Your task to perform on an android device: open app "Pandora - Music & Podcasts" Image 0: 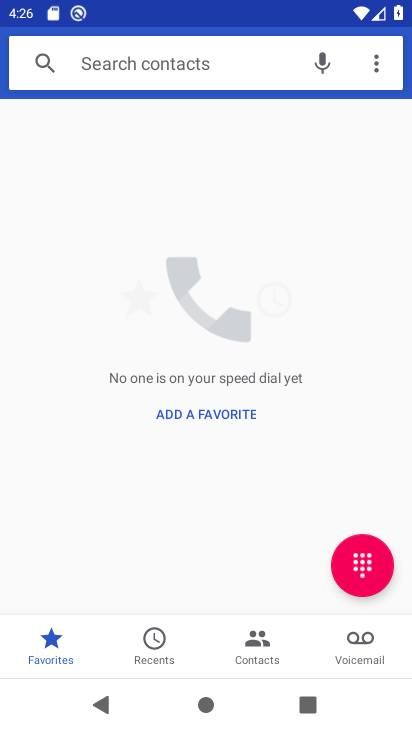
Step 0: press home button
Your task to perform on an android device: open app "Pandora - Music & Podcasts" Image 1: 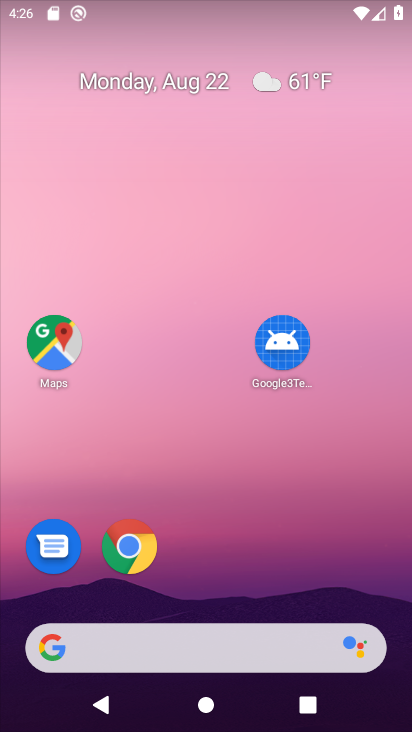
Step 1: drag from (402, 644) to (364, 157)
Your task to perform on an android device: open app "Pandora - Music & Podcasts" Image 2: 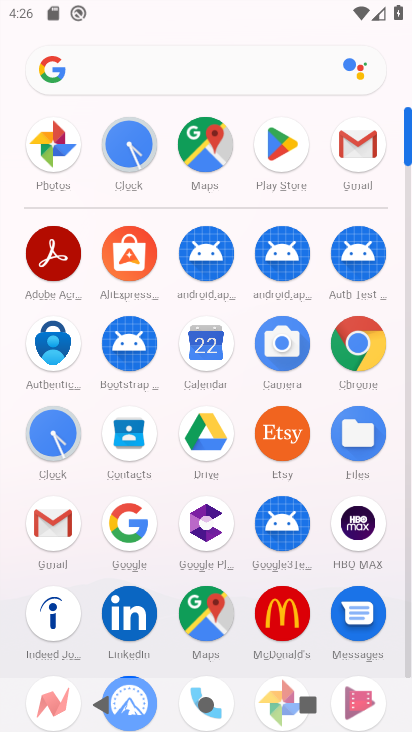
Step 2: drag from (319, 576) to (317, 365)
Your task to perform on an android device: open app "Pandora - Music & Podcasts" Image 3: 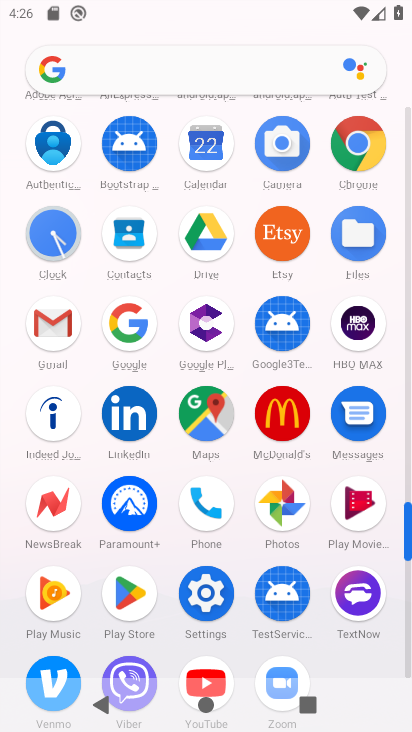
Step 3: click (128, 593)
Your task to perform on an android device: open app "Pandora - Music & Podcasts" Image 4: 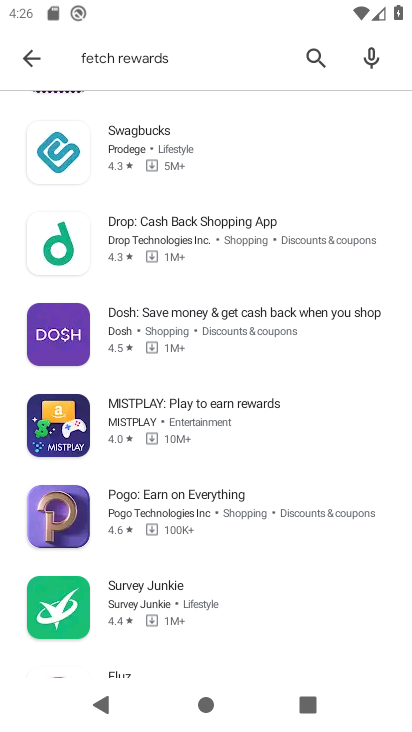
Step 4: click (309, 48)
Your task to perform on an android device: open app "Pandora - Music & Podcasts" Image 5: 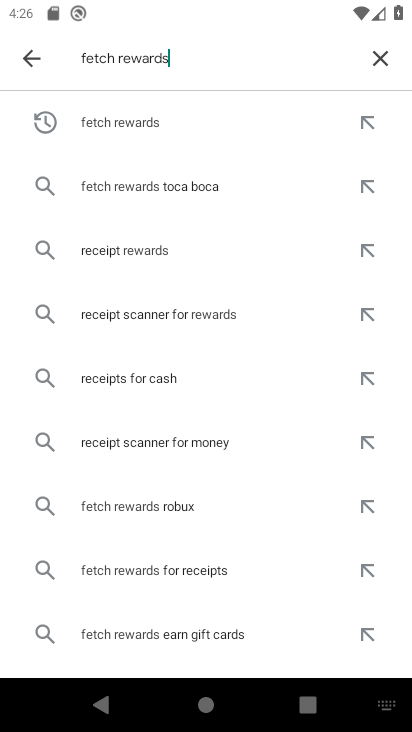
Step 5: click (376, 54)
Your task to perform on an android device: open app "Pandora - Music & Podcasts" Image 6: 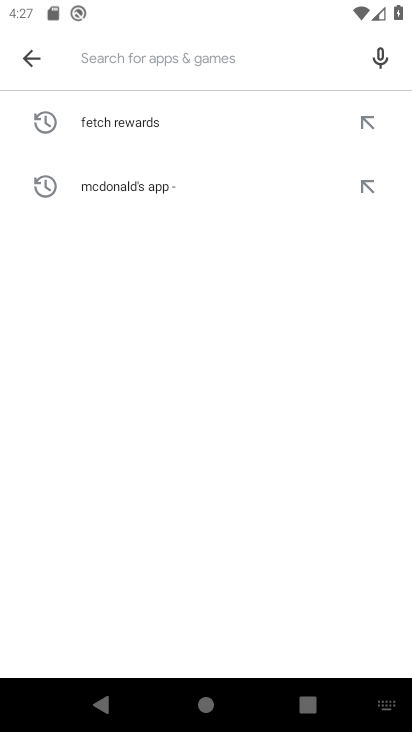
Step 6: type "Pandora - Music & Podcasts"
Your task to perform on an android device: open app "Pandora - Music & Podcasts" Image 7: 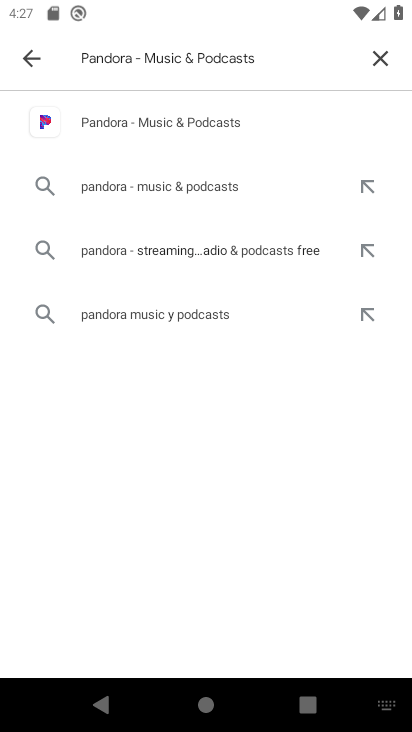
Step 7: click (146, 116)
Your task to perform on an android device: open app "Pandora - Music & Podcasts" Image 8: 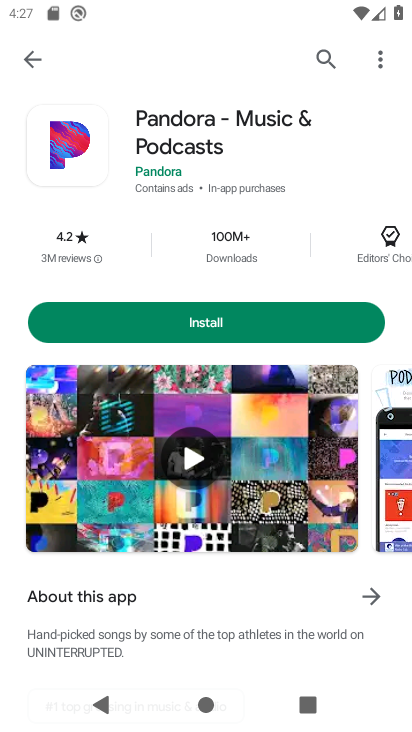
Step 8: task complete